Your task to perform on an android device: toggle wifi Image 0: 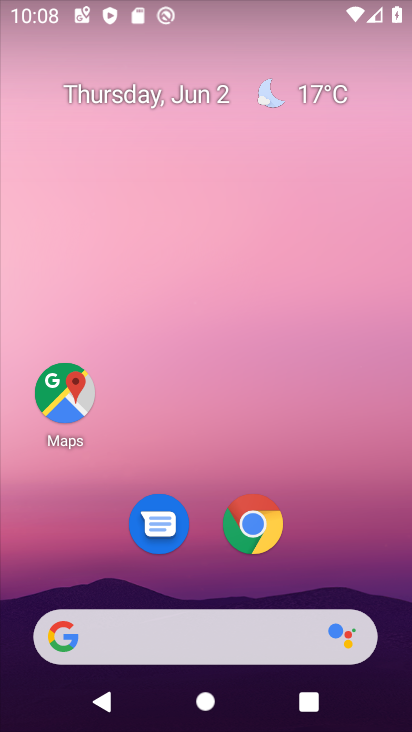
Step 0: drag from (315, 556) to (306, 23)
Your task to perform on an android device: toggle wifi Image 1: 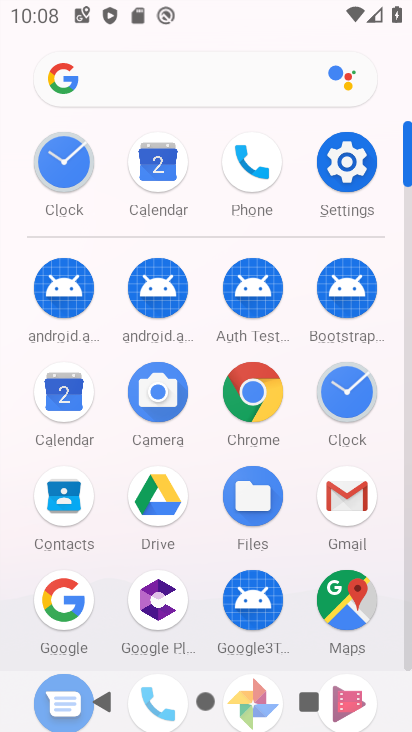
Step 1: click (343, 153)
Your task to perform on an android device: toggle wifi Image 2: 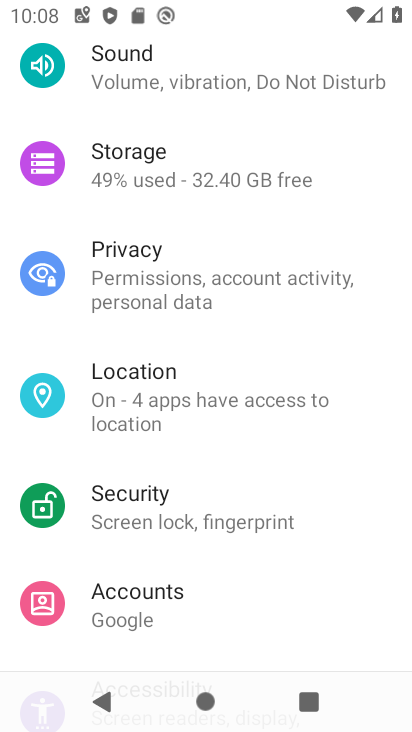
Step 2: drag from (255, 164) to (240, 639)
Your task to perform on an android device: toggle wifi Image 3: 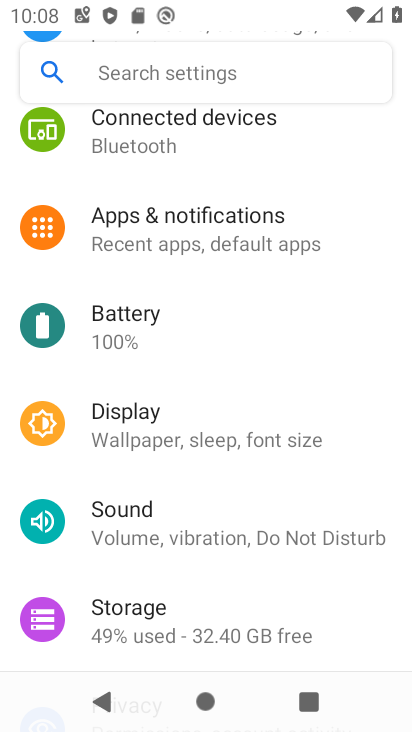
Step 3: drag from (235, 190) to (258, 542)
Your task to perform on an android device: toggle wifi Image 4: 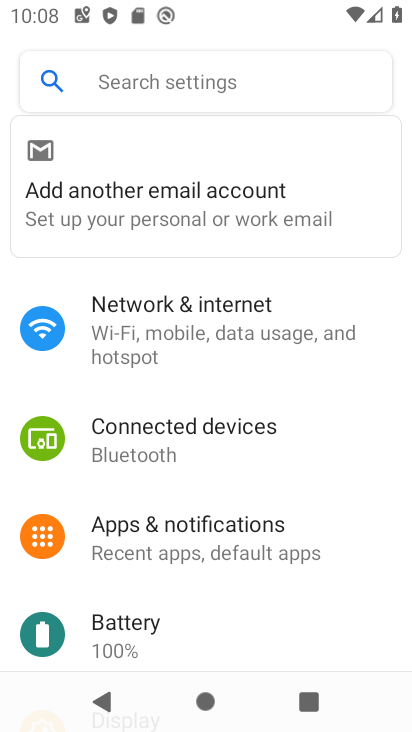
Step 4: click (236, 326)
Your task to perform on an android device: toggle wifi Image 5: 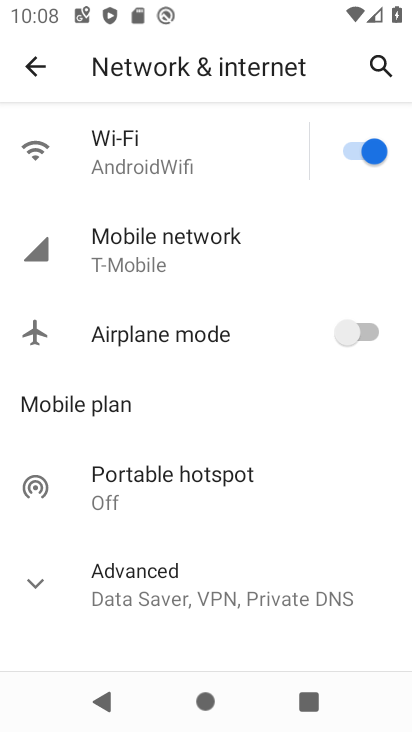
Step 5: click (357, 147)
Your task to perform on an android device: toggle wifi Image 6: 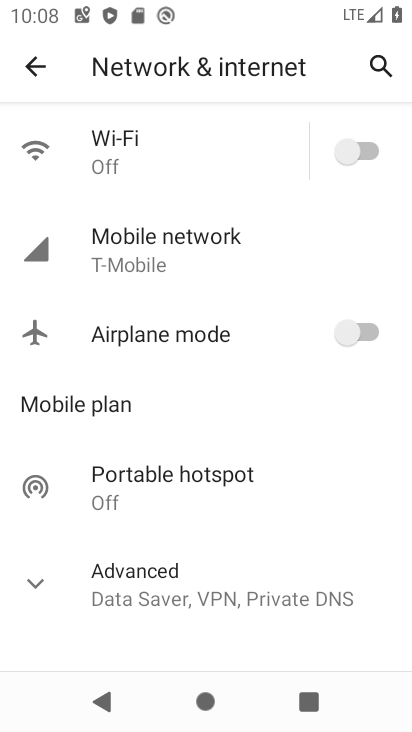
Step 6: task complete